Your task to perform on an android device: Go to Google maps Image 0: 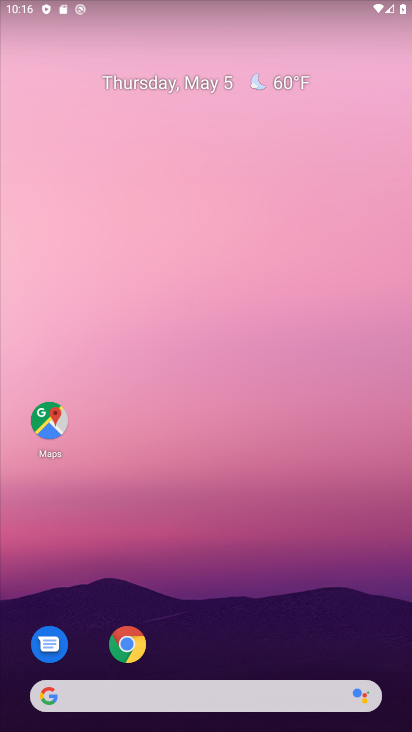
Step 0: drag from (378, 625) to (341, 142)
Your task to perform on an android device: Go to Google maps Image 1: 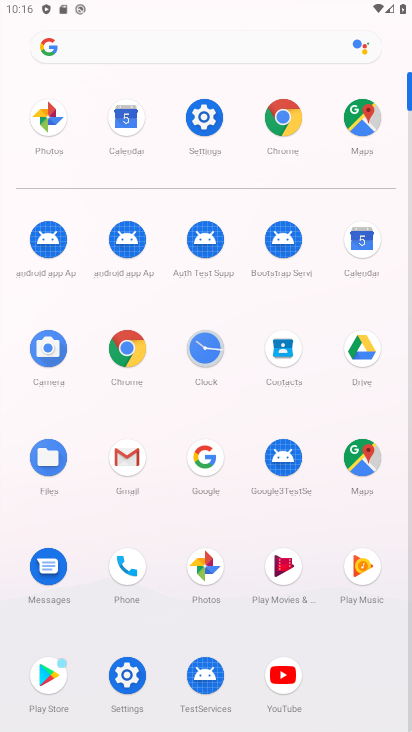
Step 1: click (364, 128)
Your task to perform on an android device: Go to Google maps Image 2: 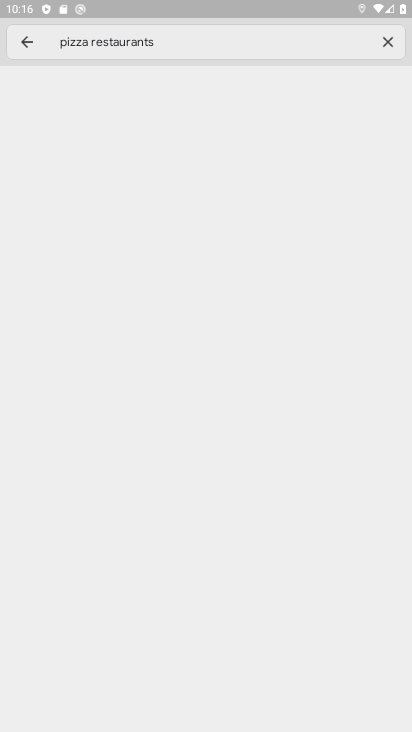
Step 2: click (391, 43)
Your task to perform on an android device: Go to Google maps Image 3: 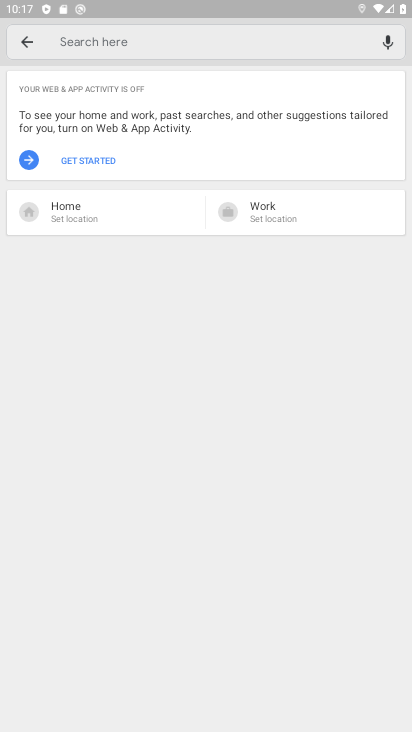
Step 3: click (60, 154)
Your task to perform on an android device: Go to Google maps Image 4: 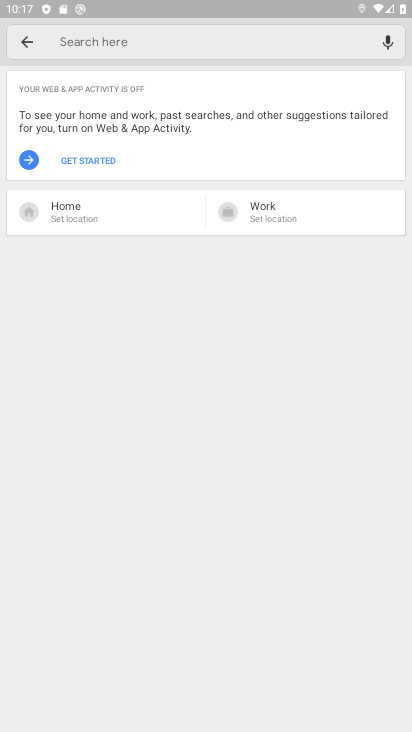
Step 4: click (77, 162)
Your task to perform on an android device: Go to Google maps Image 5: 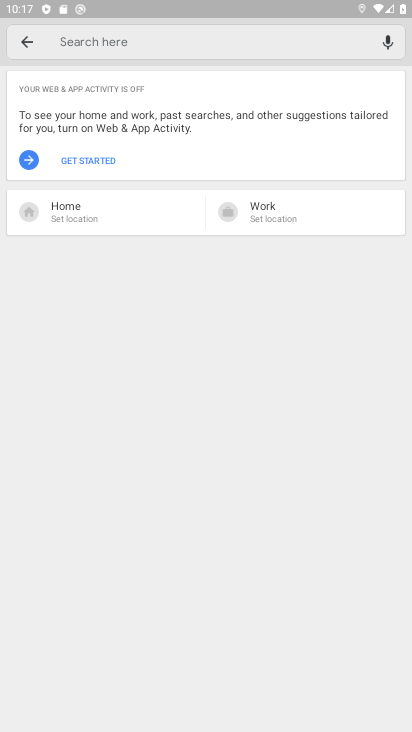
Step 5: click (25, 159)
Your task to perform on an android device: Go to Google maps Image 6: 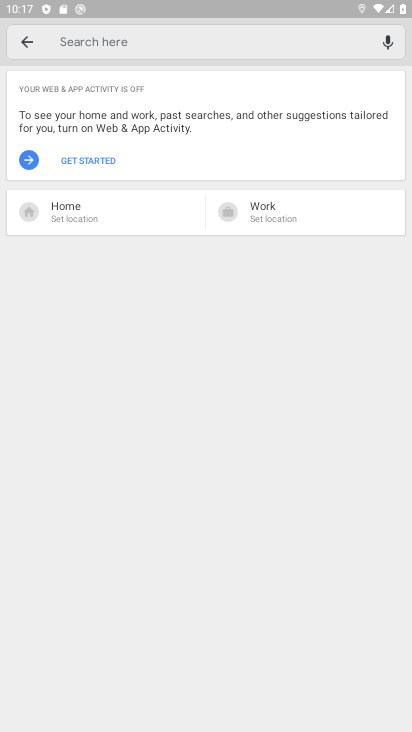
Step 6: click (86, 216)
Your task to perform on an android device: Go to Google maps Image 7: 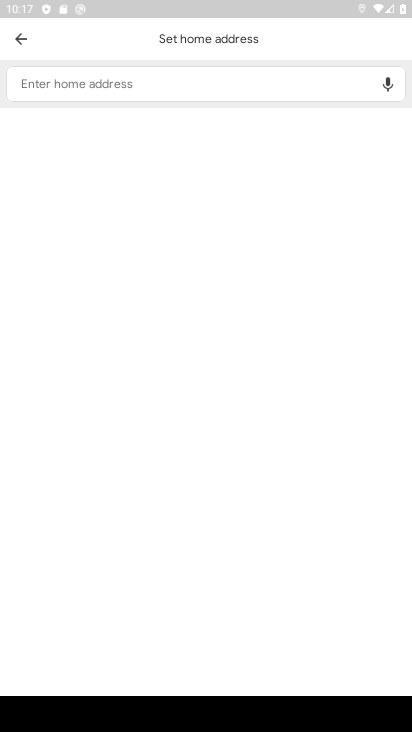
Step 7: task complete